Your task to perform on an android device: Open Google Maps Image 0: 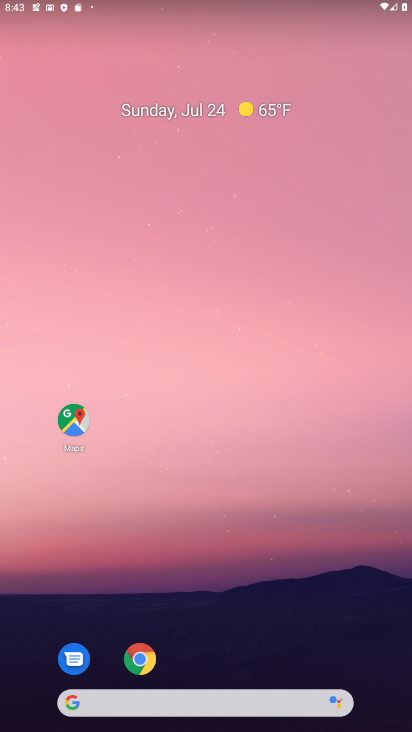
Step 0: click (76, 415)
Your task to perform on an android device: Open Google Maps Image 1: 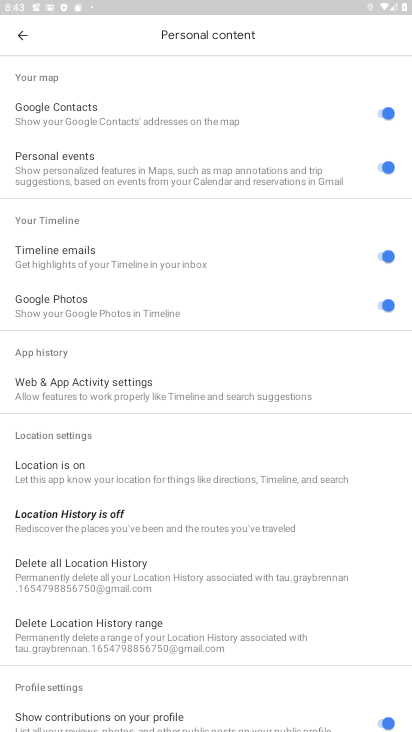
Step 1: task complete